Your task to perform on an android device: open app "Skype" Image 0: 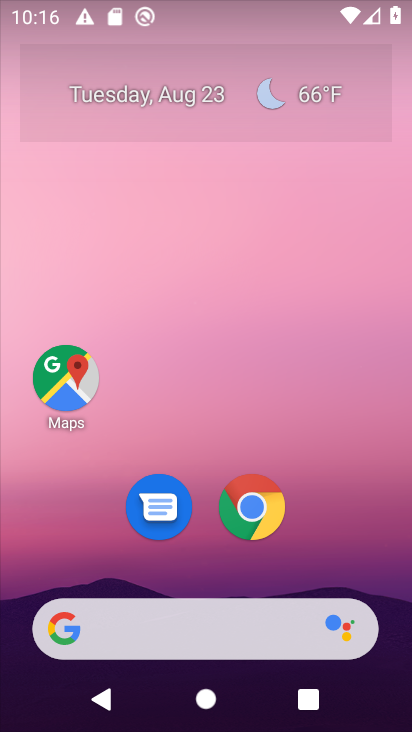
Step 0: drag from (398, 668) to (311, 188)
Your task to perform on an android device: open app "Skype" Image 1: 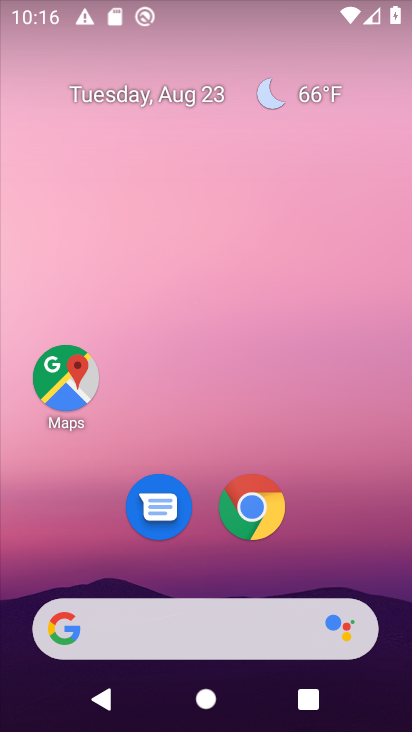
Step 1: drag from (409, 654) to (314, 69)
Your task to perform on an android device: open app "Skype" Image 2: 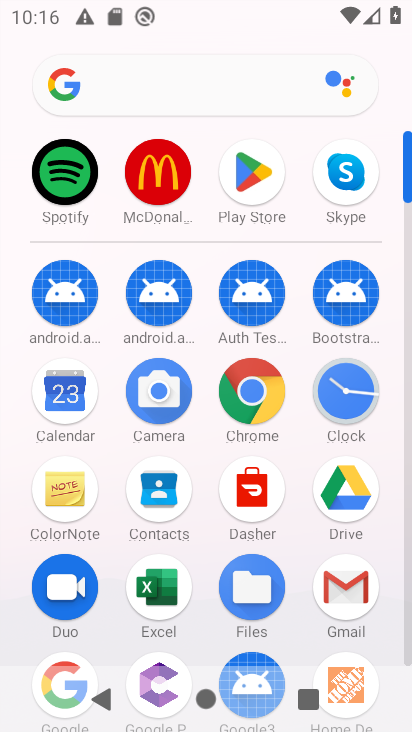
Step 2: click (407, 641)
Your task to perform on an android device: open app "Skype" Image 3: 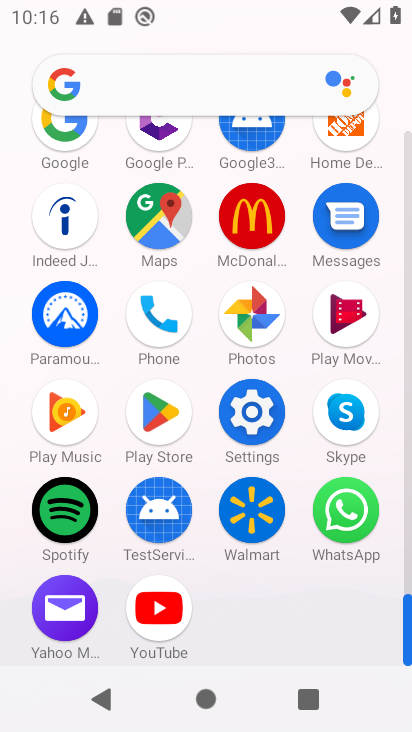
Step 3: click (342, 407)
Your task to perform on an android device: open app "Skype" Image 4: 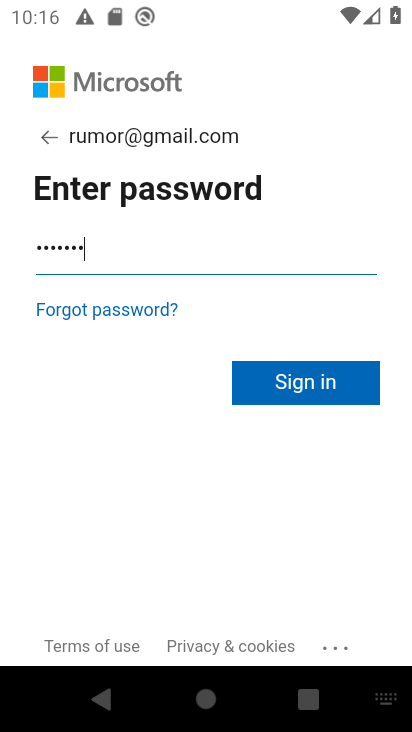
Step 4: task complete